Your task to perform on an android device: Open Youtube and go to "Your channel" Image 0: 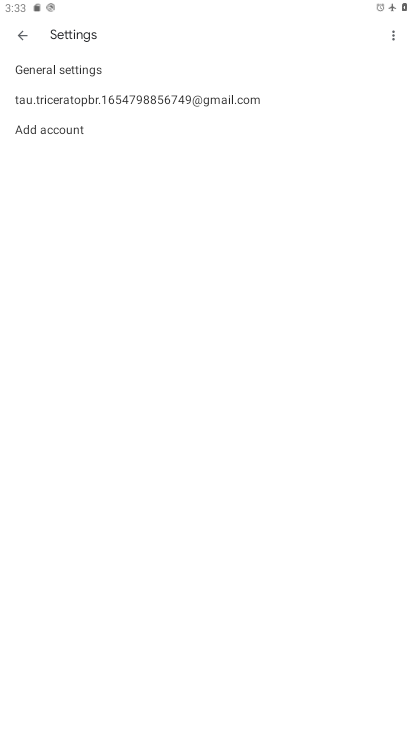
Step 0: press home button
Your task to perform on an android device: Open Youtube and go to "Your channel" Image 1: 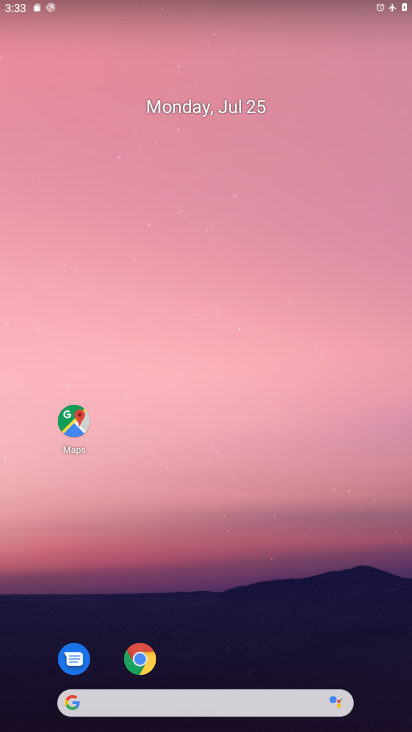
Step 1: drag from (200, 491) to (197, 24)
Your task to perform on an android device: Open Youtube and go to "Your channel" Image 2: 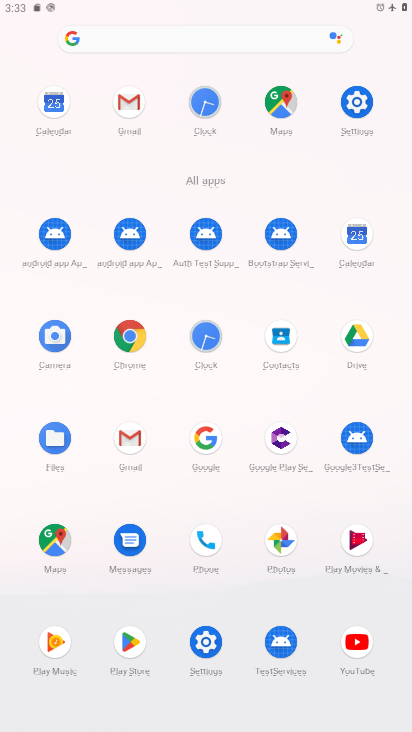
Step 2: click (362, 658)
Your task to perform on an android device: Open Youtube and go to "Your channel" Image 3: 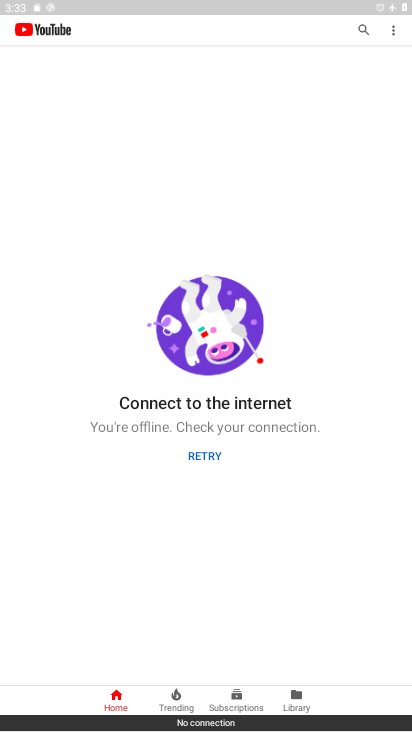
Step 3: click (298, 703)
Your task to perform on an android device: Open Youtube and go to "Your channel" Image 4: 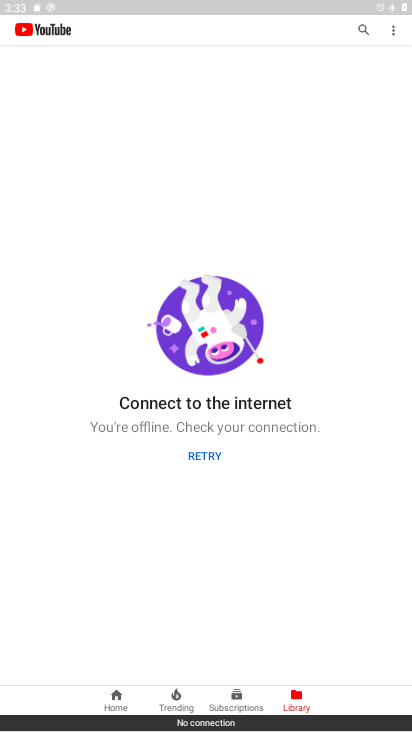
Step 4: task complete